Your task to perform on an android device: delete the emails in spam in the gmail app Image 0: 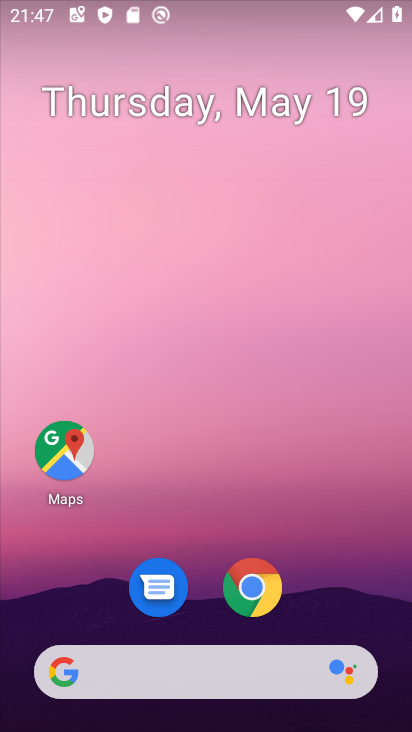
Step 0: drag from (227, 658) to (8, 221)
Your task to perform on an android device: delete the emails in spam in the gmail app Image 1: 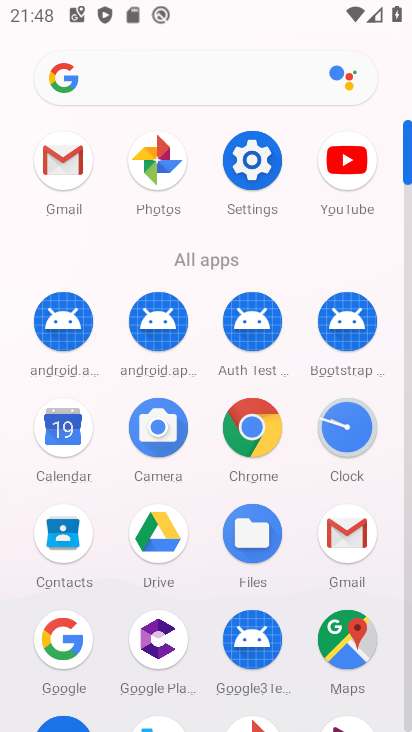
Step 1: click (54, 169)
Your task to perform on an android device: delete the emails in spam in the gmail app Image 2: 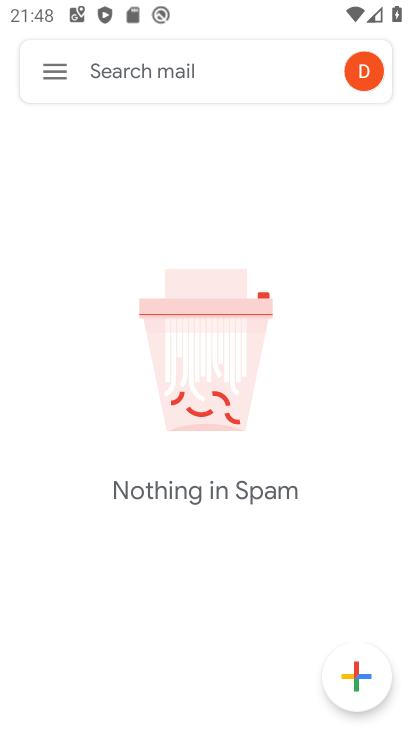
Step 2: task complete